Your task to perform on an android device: open chrome privacy settings Image 0: 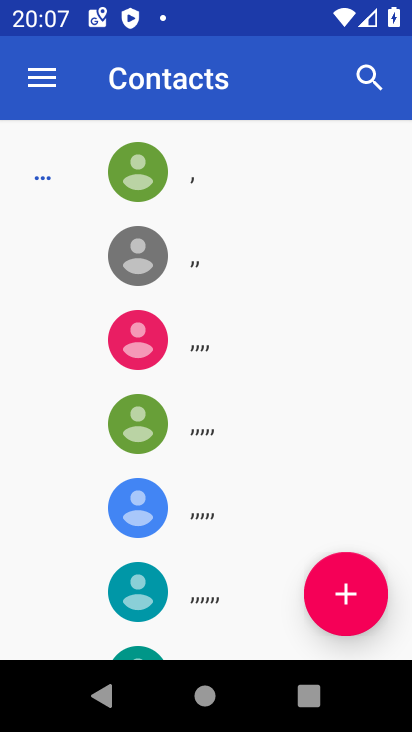
Step 0: press home button
Your task to perform on an android device: open chrome privacy settings Image 1: 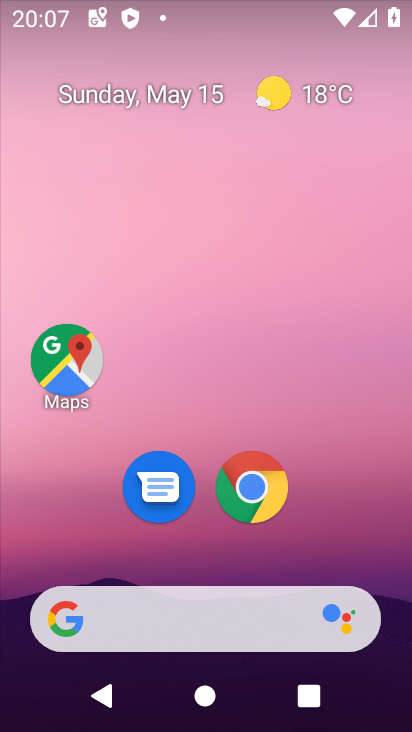
Step 1: click (255, 485)
Your task to perform on an android device: open chrome privacy settings Image 2: 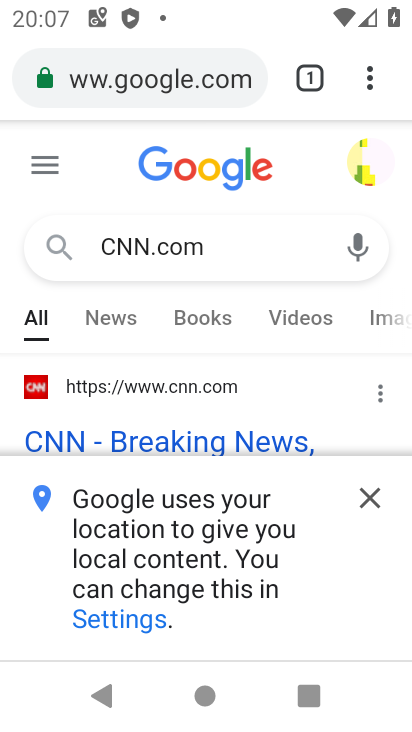
Step 2: click (366, 77)
Your task to perform on an android device: open chrome privacy settings Image 3: 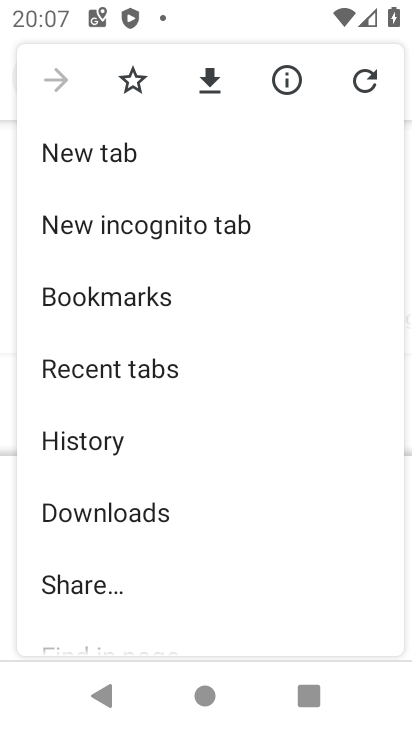
Step 3: drag from (267, 583) to (281, 362)
Your task to perform on an android device: open chrome privacy settings Image 4: 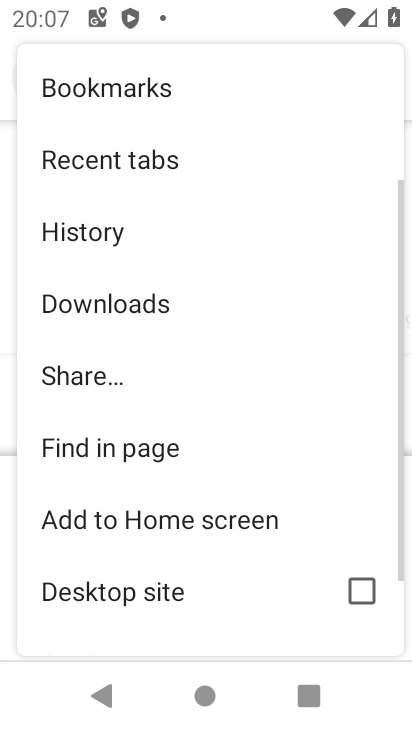
Step 4: drag from (264, 620) to (259, 383)
Your task to perform on an android device: open chrome privacy settings Image 5: 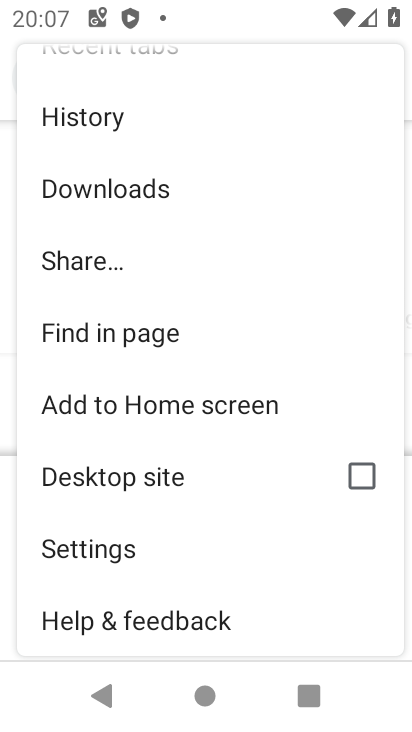
Step 5: click (101, 547)
Your task to perform on an android device: open chrome privacy settings Image 6: 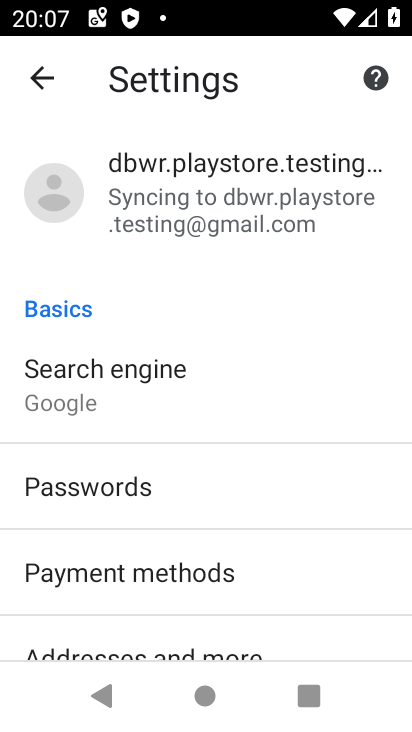
Step 6: drag from (342, 625) to (299, 324)
Your task to perform on an android device: open chrome privacy settings Image 7: 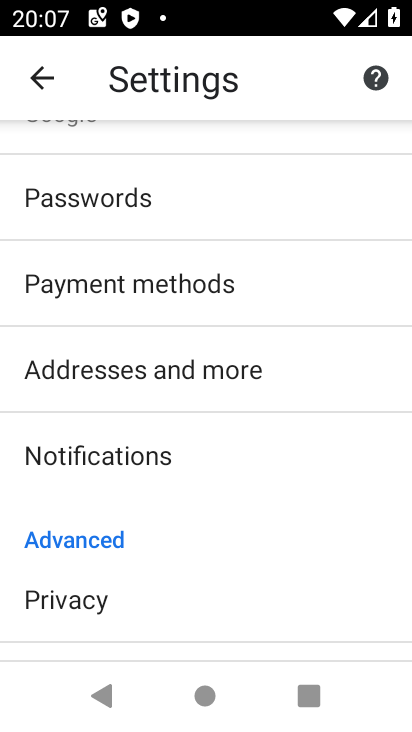
Step 7: click (70, 588)
Your task to perform on an android device: open chrome privacy settings Image 8: 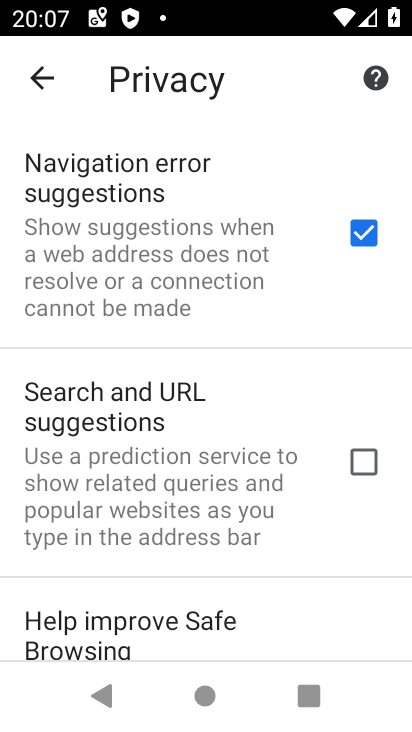
Step 8: task complete